Your task to perform on an android device: Open the calendar app, open the side menu, and click the "Day" option Image 0: 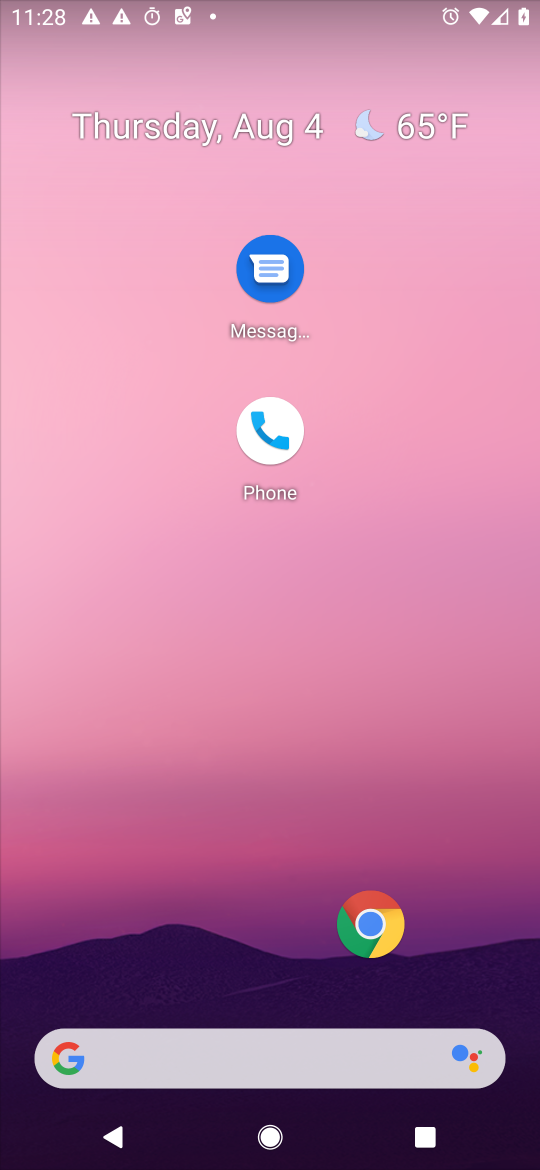
Step 0: drag from (280, 780) to (278, 236)
Your task to perform on an android device: Open the calendar app, open the side menu, and click the "Day" option Image 1: 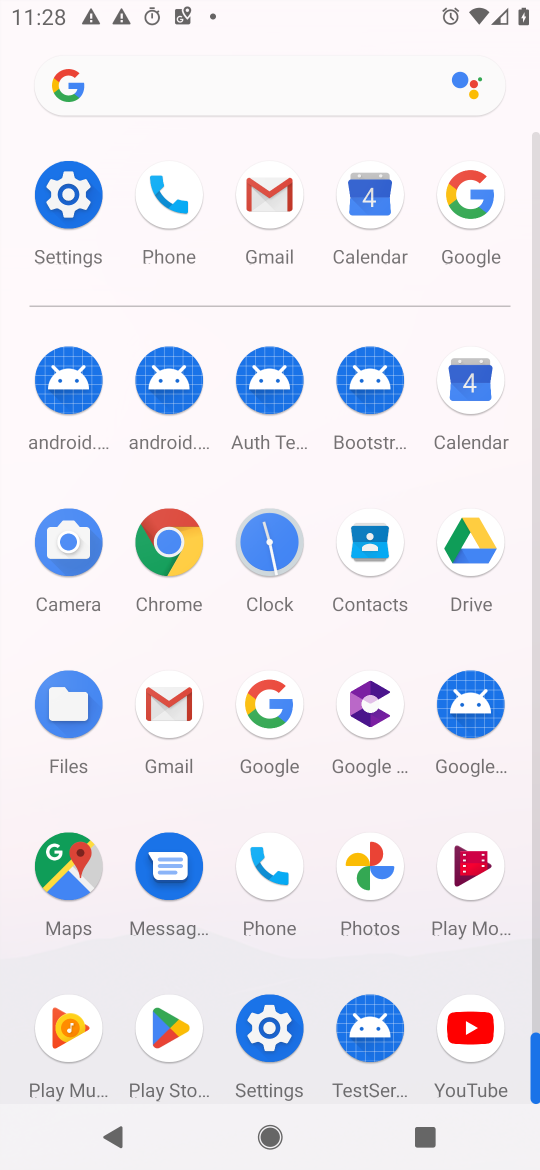
Step 1: click (468, 384)
Your task to perform on an android device: Open the calendar app, open the side menu, and click the "Day" option Image 2: 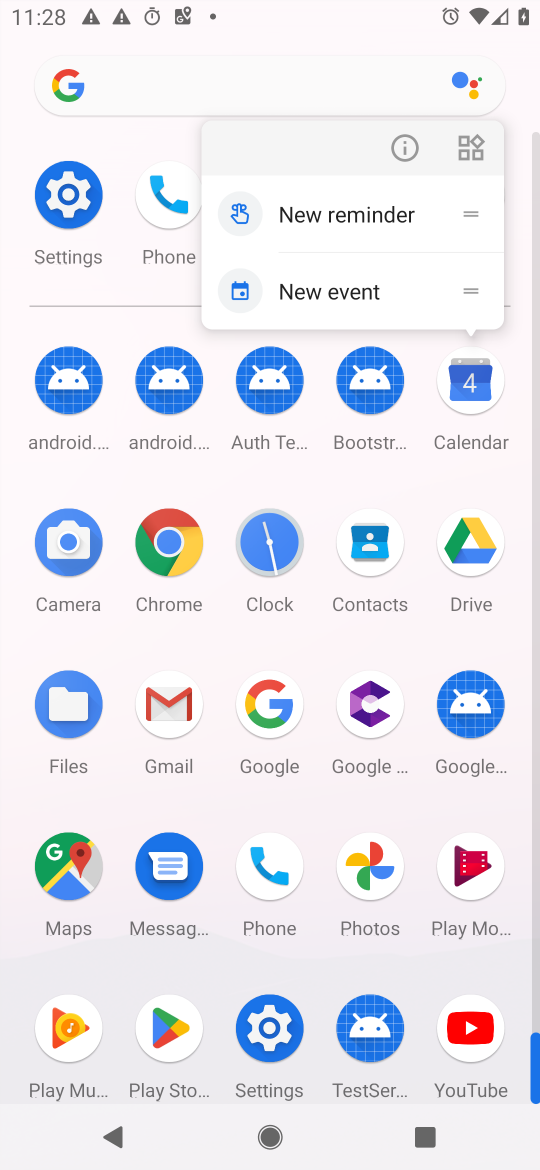
Step 2: click (400, 140)
Your task to perform on an android device: Open the calendar app, open the side menu, and click the "Day" option Image 3: 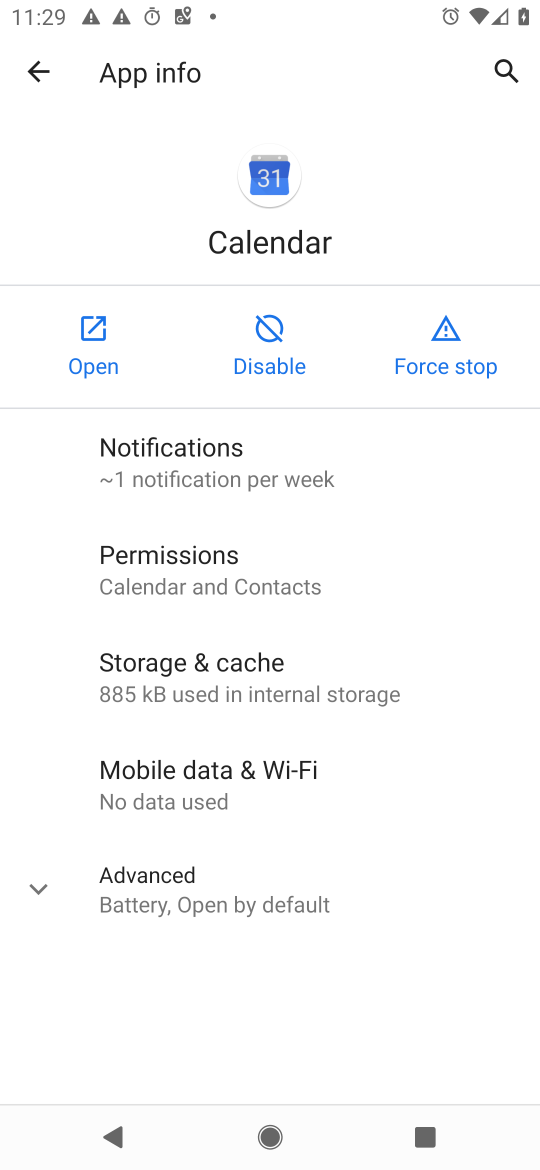
Step 3: click (104, 354)
Your task to perform on an android device: Open the calendar app, open the side menu, and click the "Day" option Image 4: 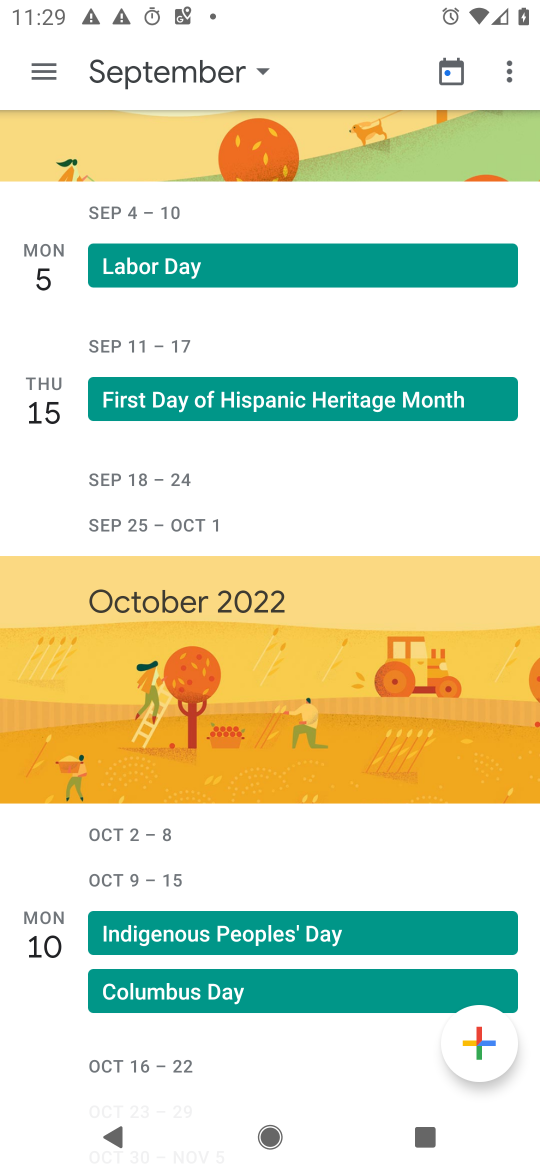
Step 4: click (55, 58)
Your task to perform on an android device: Open the calendar app, open the side menu, and click the "Day" option Image 5: 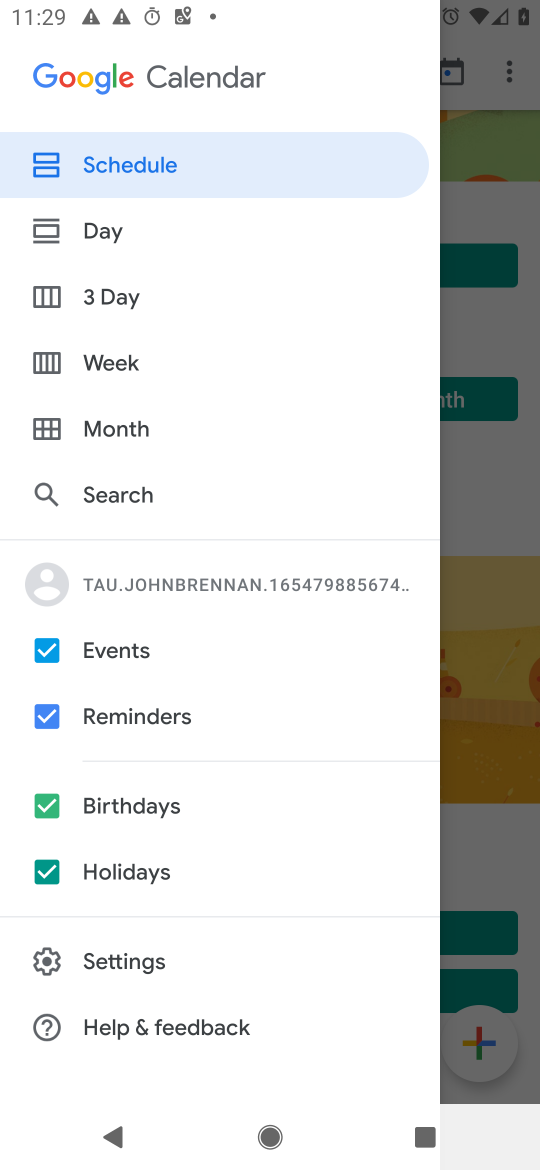
Step 5: click (95, 245)
Your task to perform on an android device: Open the calendar app, open the side menu, and click the "Day" option Image 6: 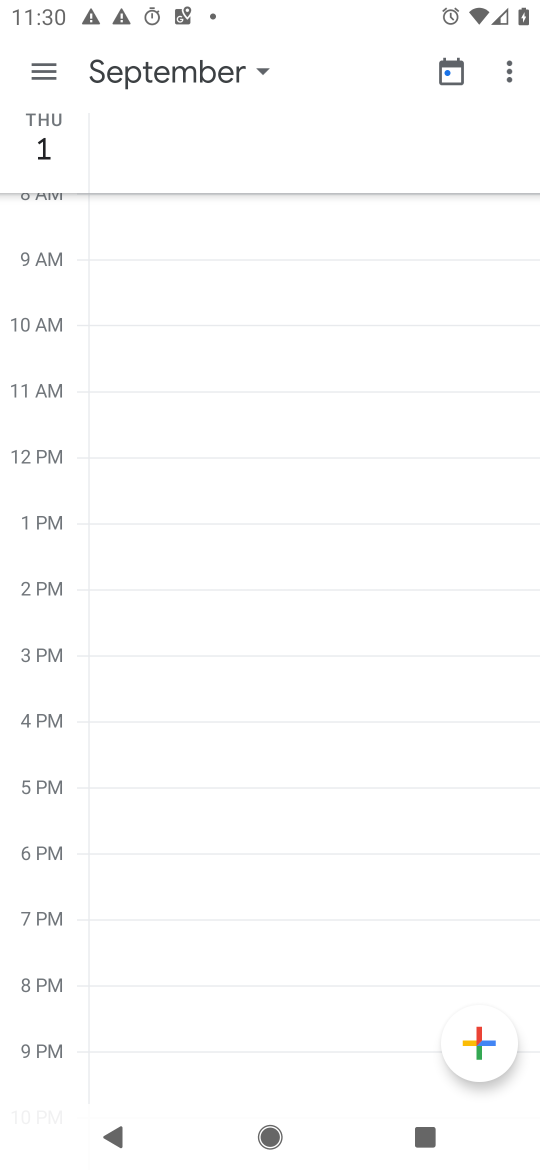
Step 6: click (56, 62)
Your task to perform on an android device: Open the calendar app, open the side menu, and click the "Day" option Image 7: 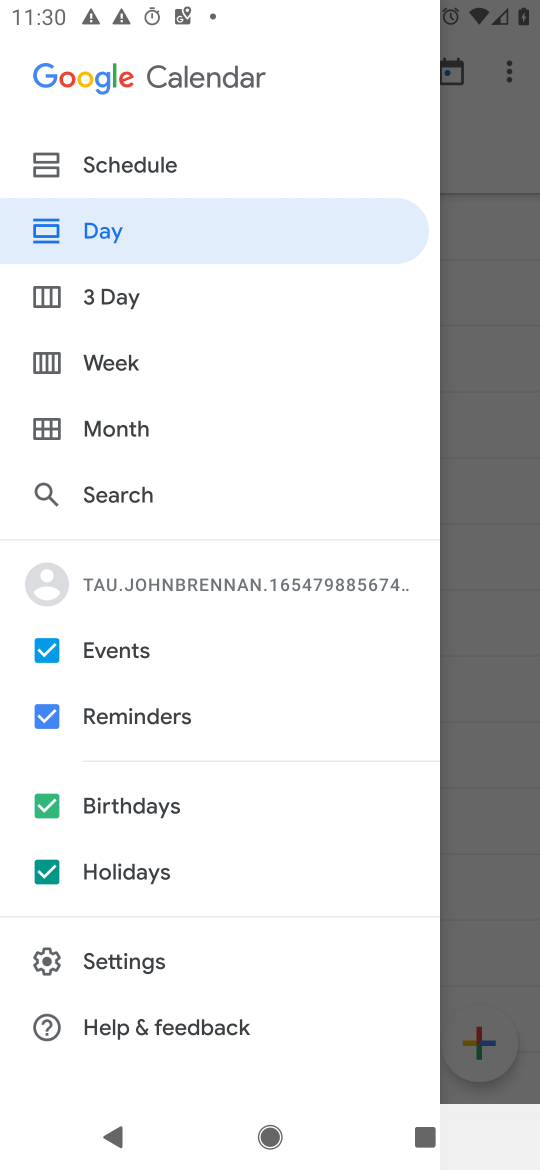
Step 7: task complete